Your task to perform on an android device: install app "ZOOM Cloud Meetings" Image 0: 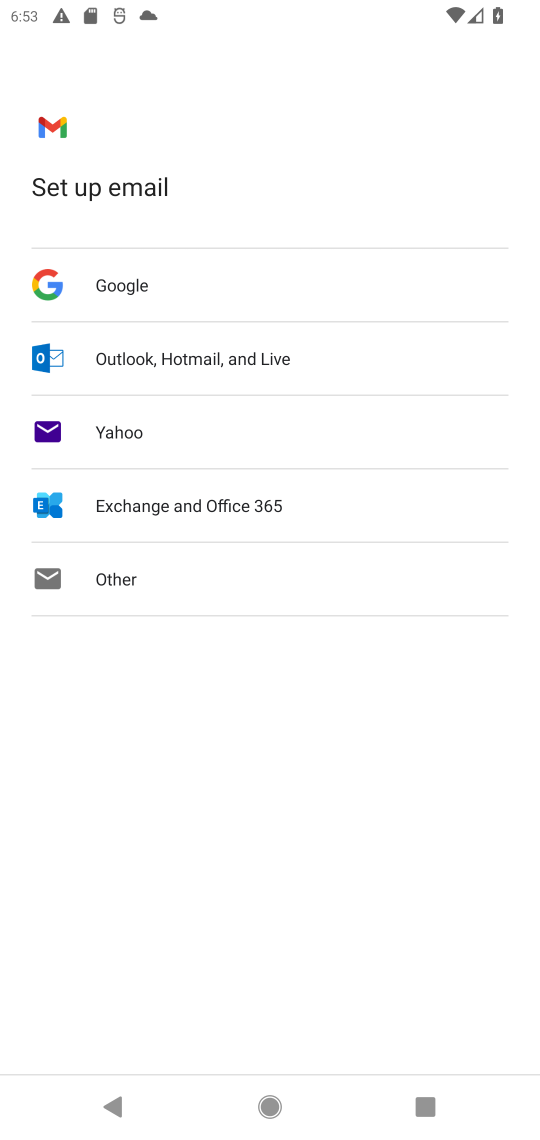
Step 0: press home button
Your task to perform on an android device: install app "ZOOM Cloud Meetings" Image 1: 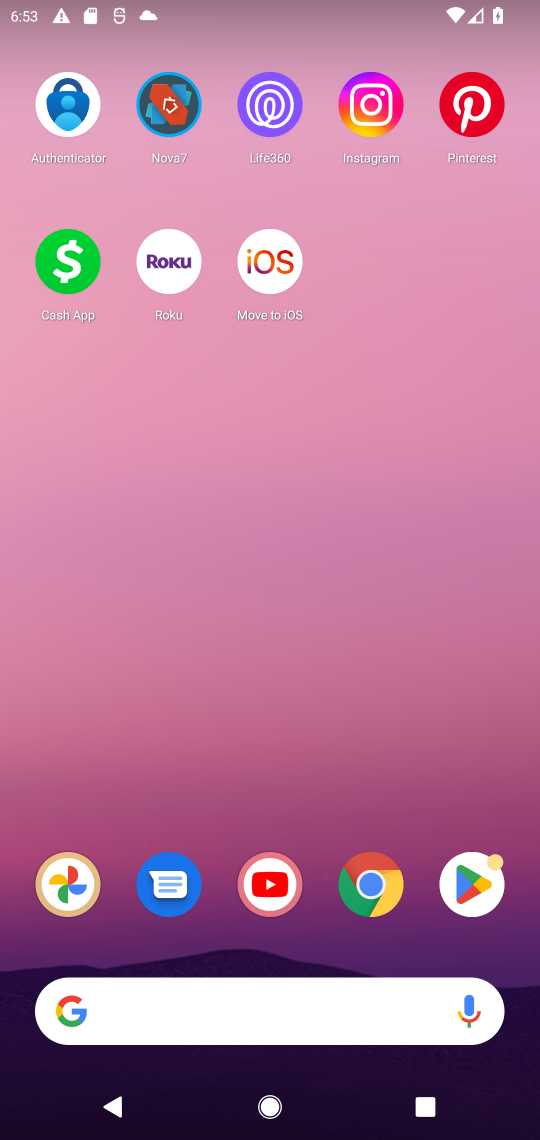
Step 1: click (458, 862)
Your task to perform on an android device: install app "ZOOM Cloud Meetings" Image 2: 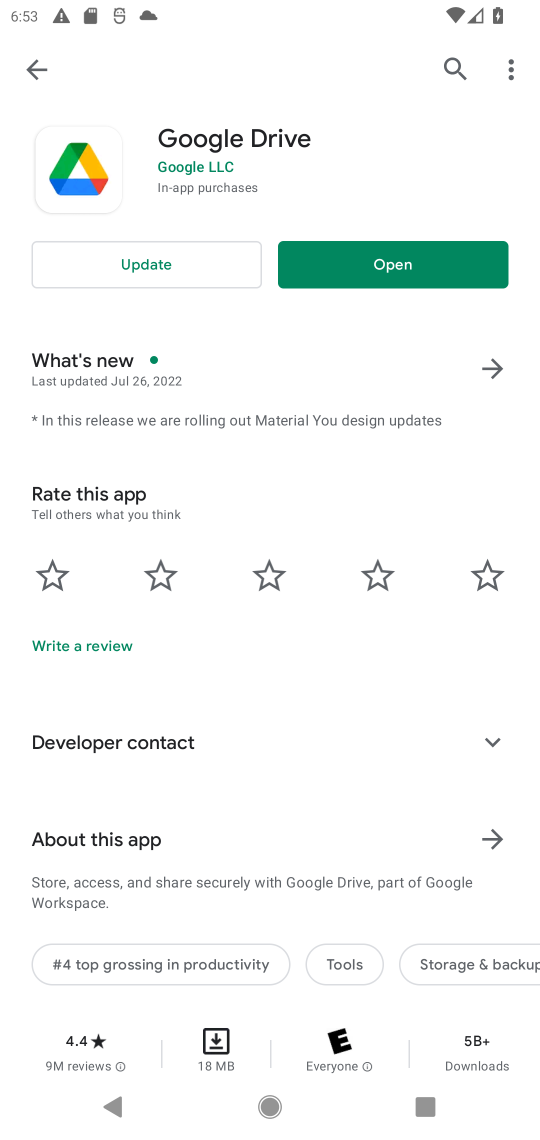
Step 2: click (446, 67)
Your task to perform on an android device: install app "ZOOM Cloud Meetings" Image 3: 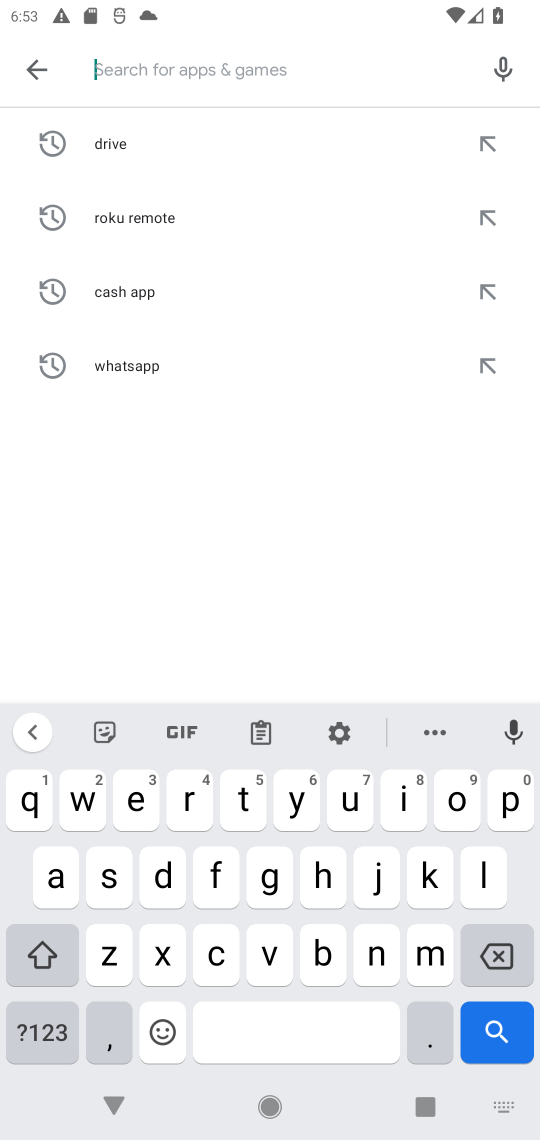
Step 3: click (116, 947)
Your task to perform on an android device: install app "ZOOM Cloud Meetings" Image 4: 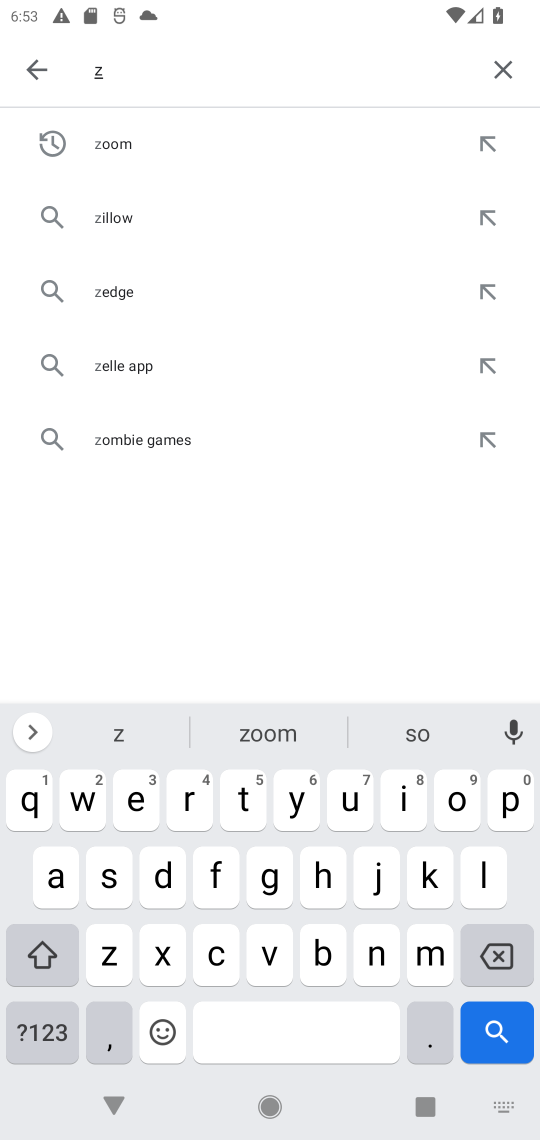
Step 4: click (114, 135)
Your task to perform on an android device: install app "ZOOM Cloud Meetings" Image 5: 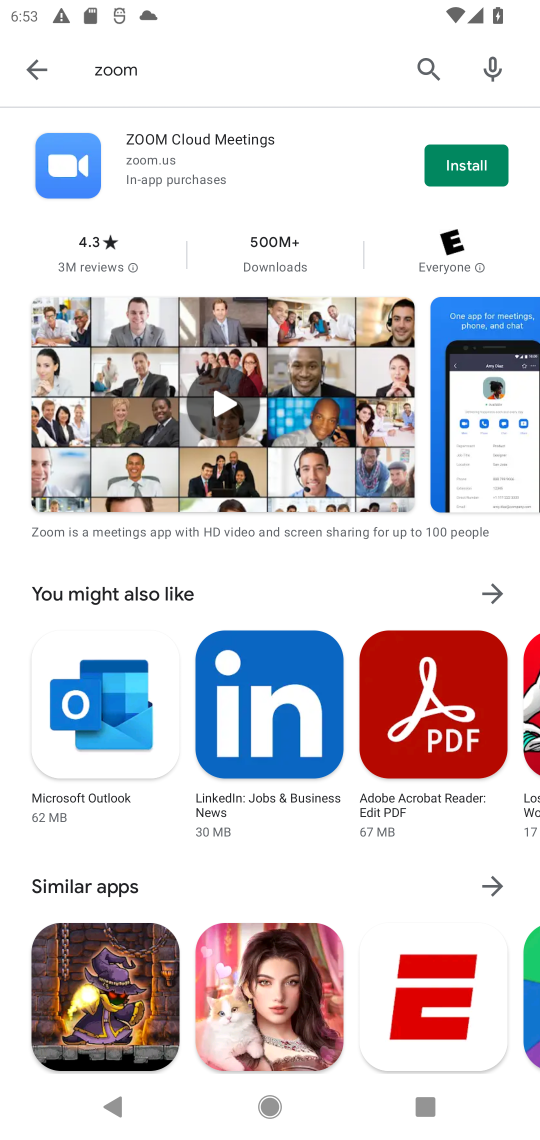
Step 5: click (450, 164)
Your task to perform on an android device: install app "ZOOM Cloud Meetings" Image 6: 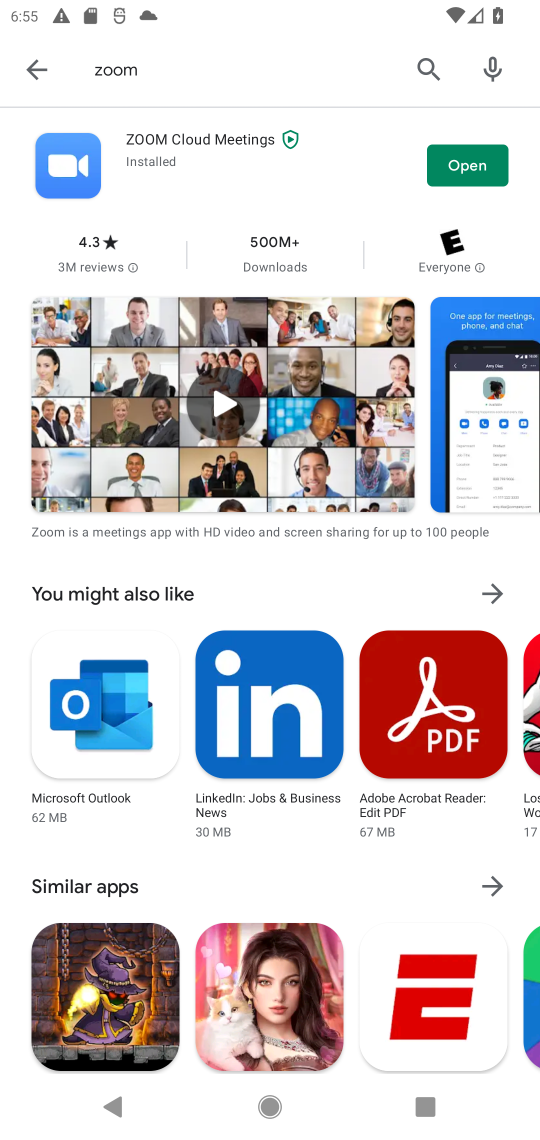
Step 6: task complete